Your task to perform on an android device: Open calendar and show me the fourth week of next month Image 0: 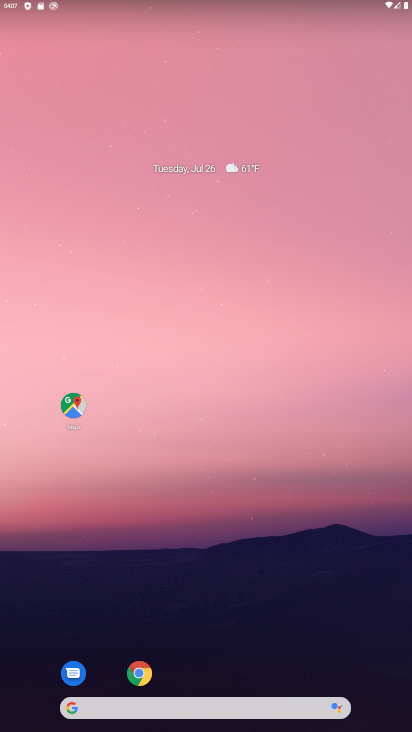
Step 0: drag from (231, 665) to (222, 14)
Your task to perform on an android device: Open calendar and show me the fourth week of next month Image 1: 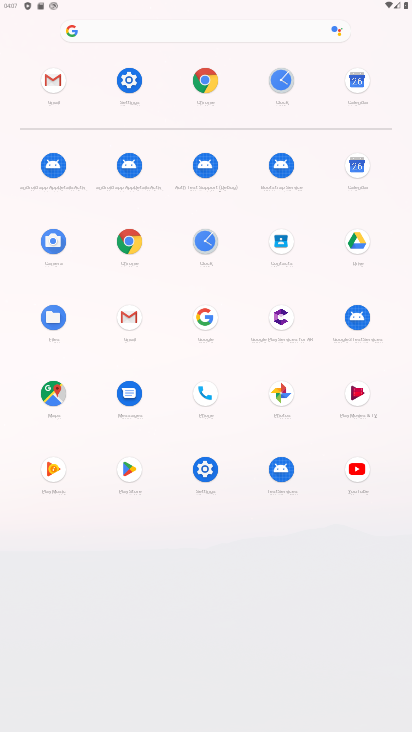
Step 1: click (355, 165)
Your task to perform on an android device: Open calendar and show me the fourth week of next month Image 2: 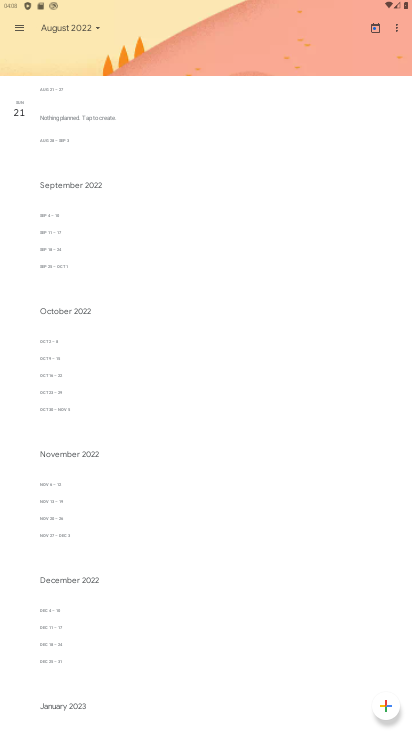
Step 2: task complete